Your task to perform on an android device: turn notification dots off Image 0: 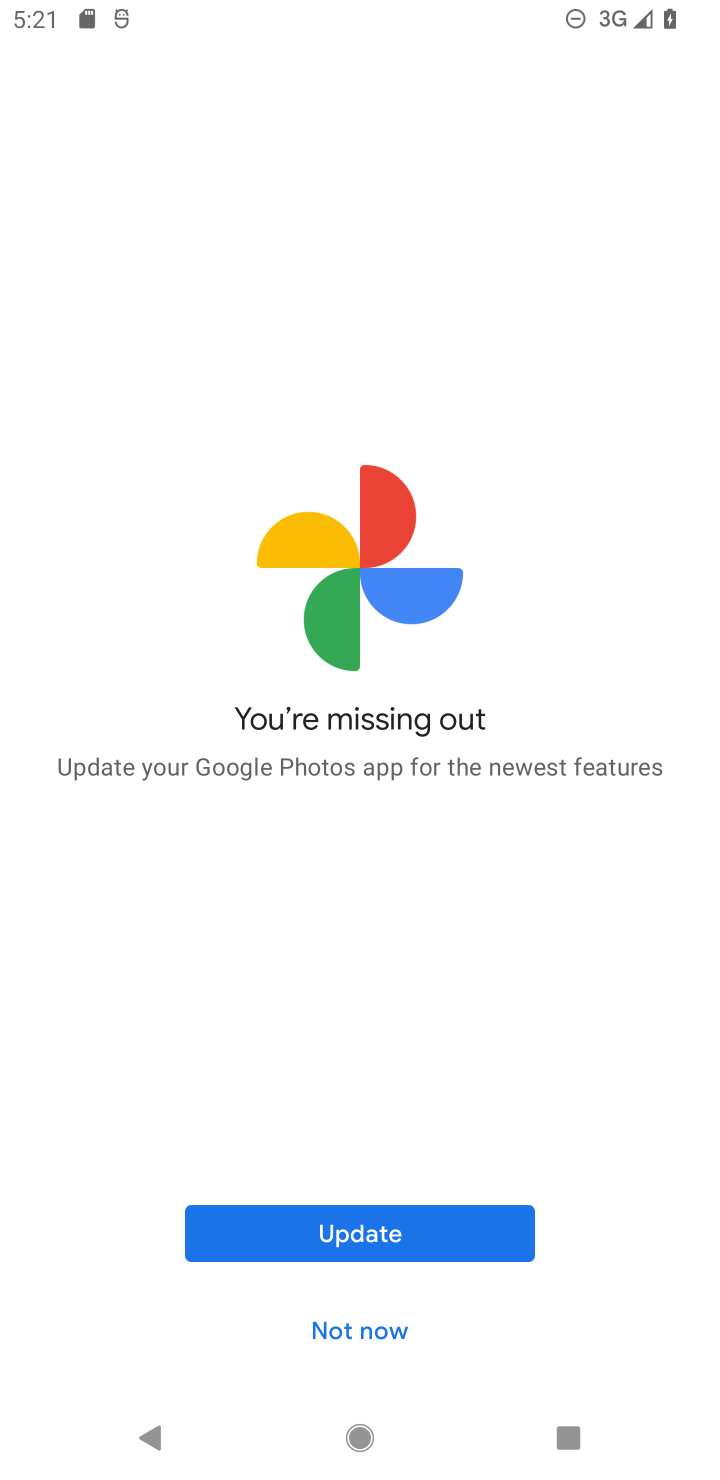
Step 0: press home button
Your task to perform on an android device: turn notification dots off Image 1: 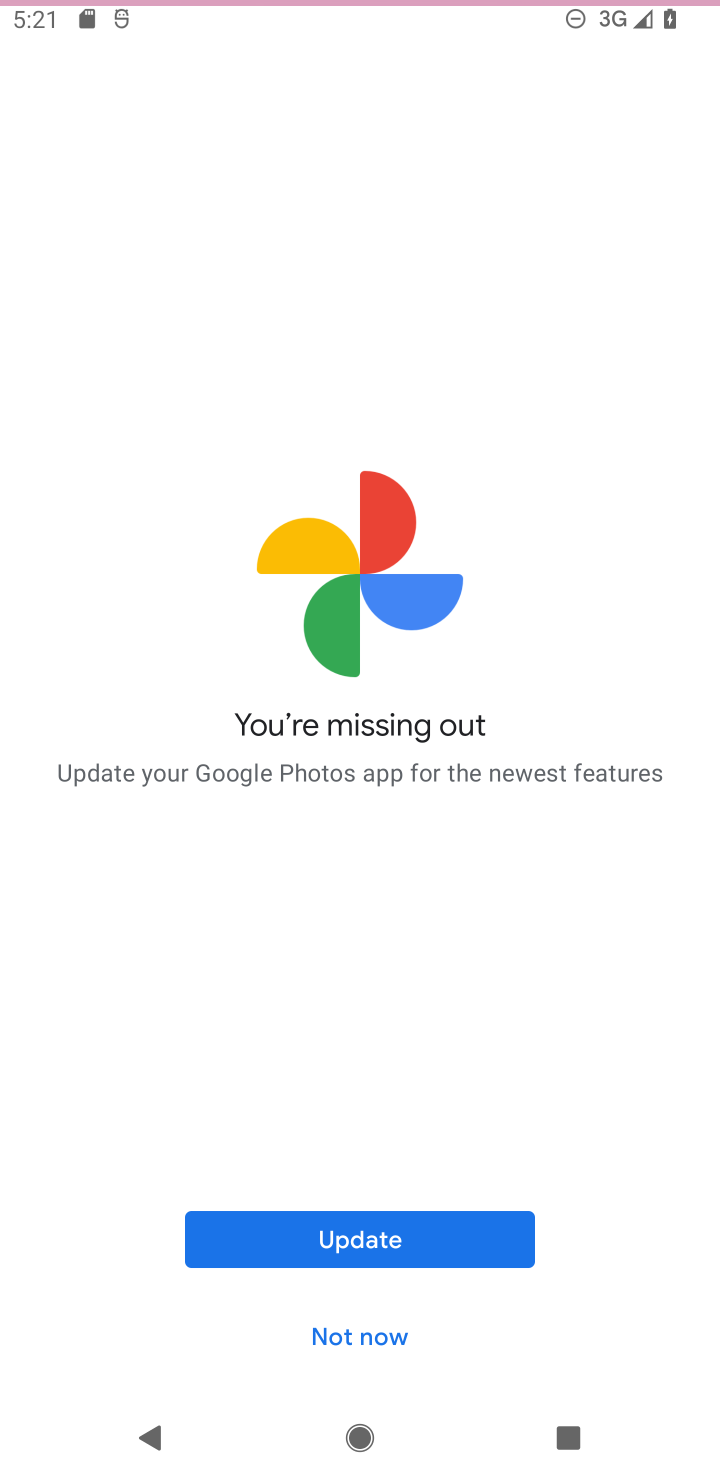
Step 1: drag from (505, 1171) to (502, 232)
Your task to perform on an android device: turn notification dots off Image 2: 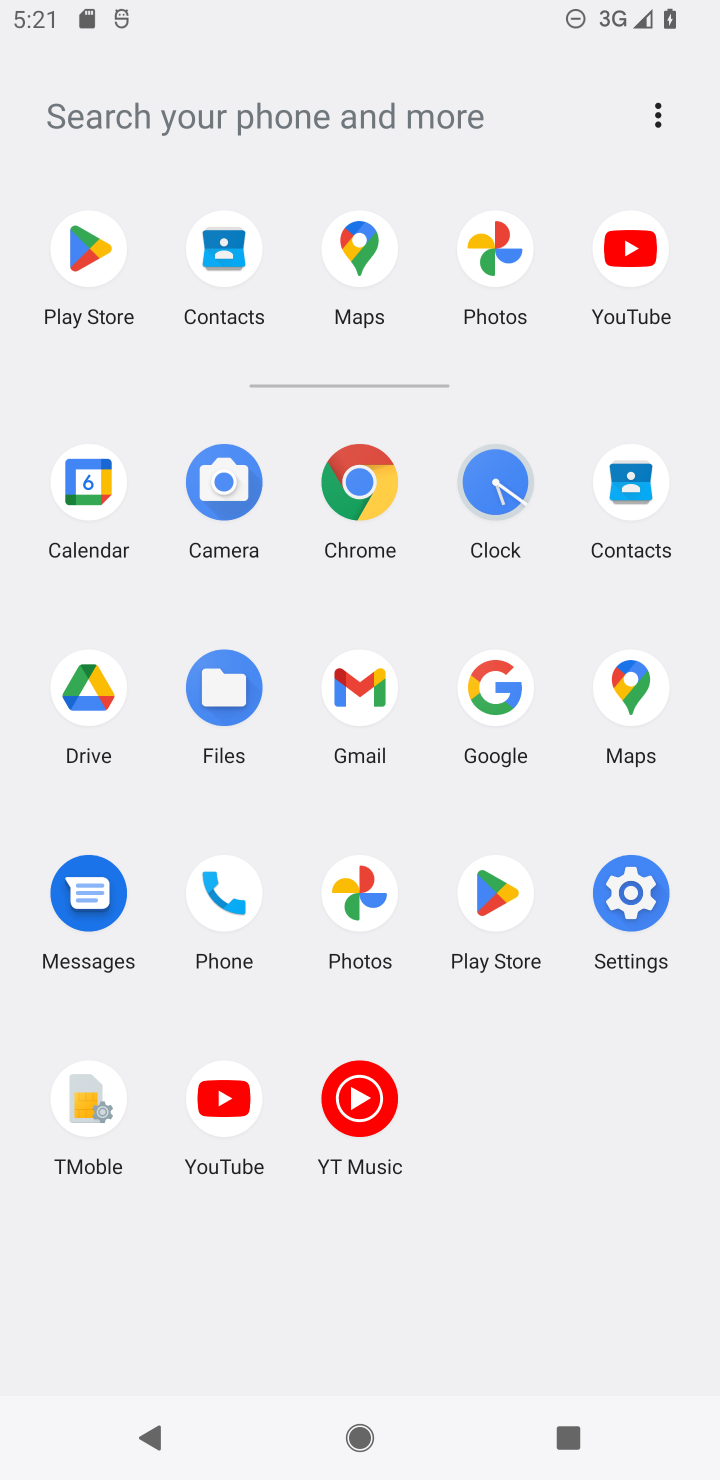
Step 2: click (615, 864)
Your task to perform on an android device: turn notification dots off Image 3: 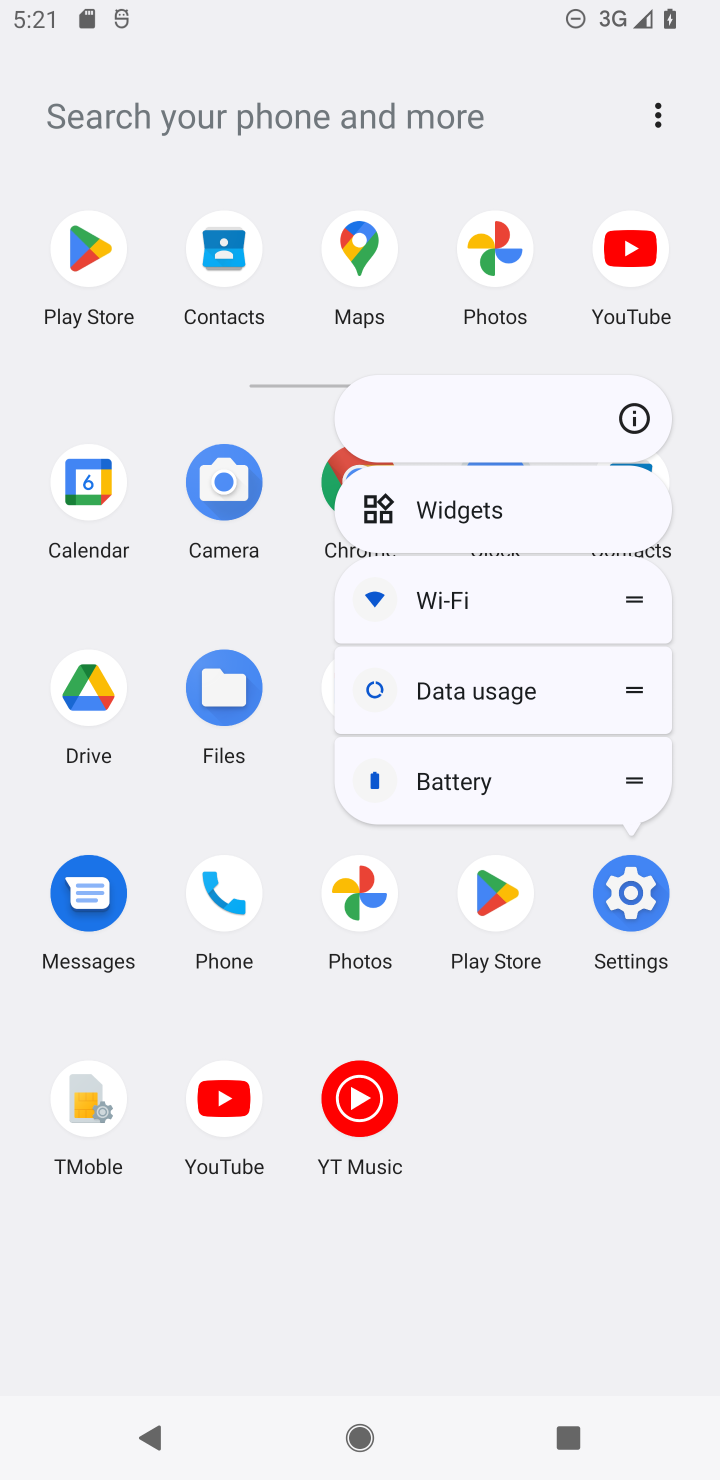
Step 3: click (643, 864)
Your task to perform on an android device: turn notification dots off Image 4: 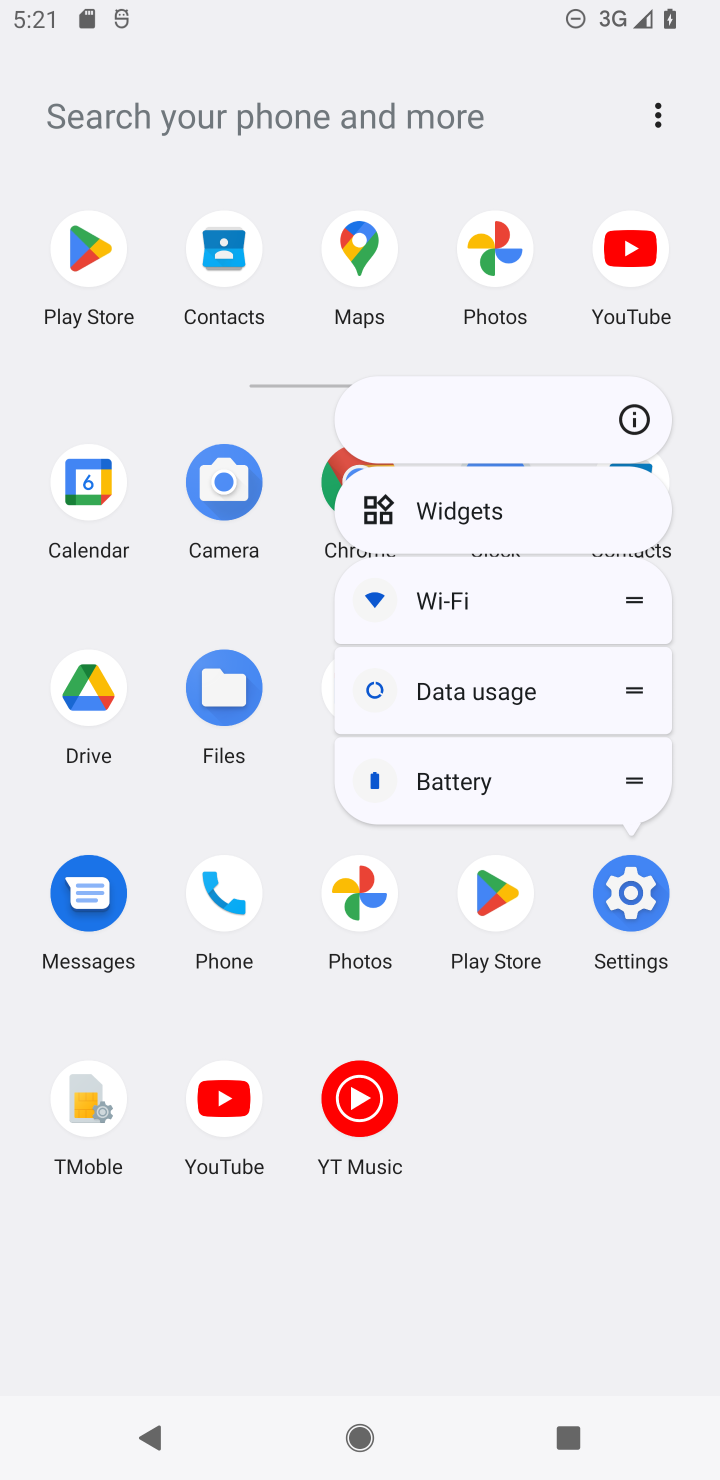
Step 4: click (643, 864)
Your task to perform on an android device: turn notification dots off Image 5: 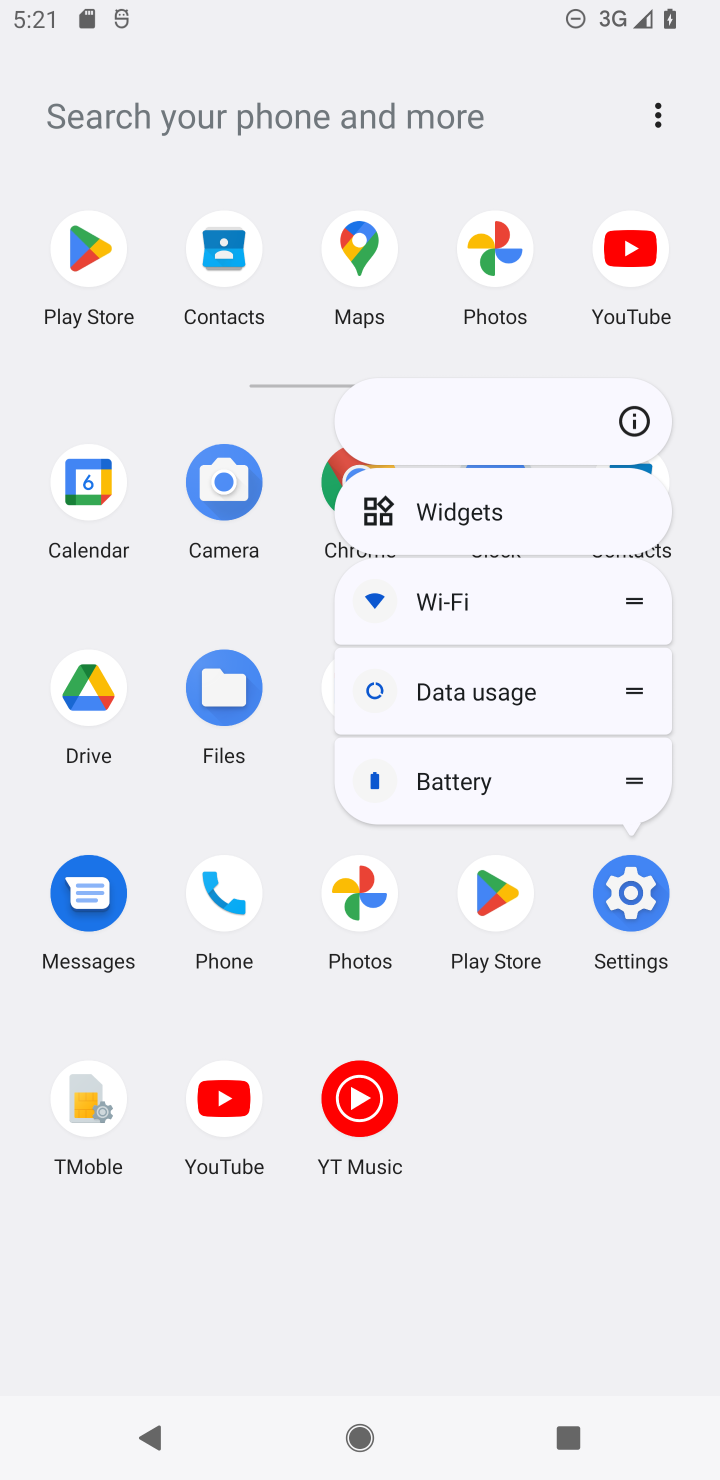
Step 5: click (635, 860)
Your task to perform on an android device: turn notification dots off Image 6: 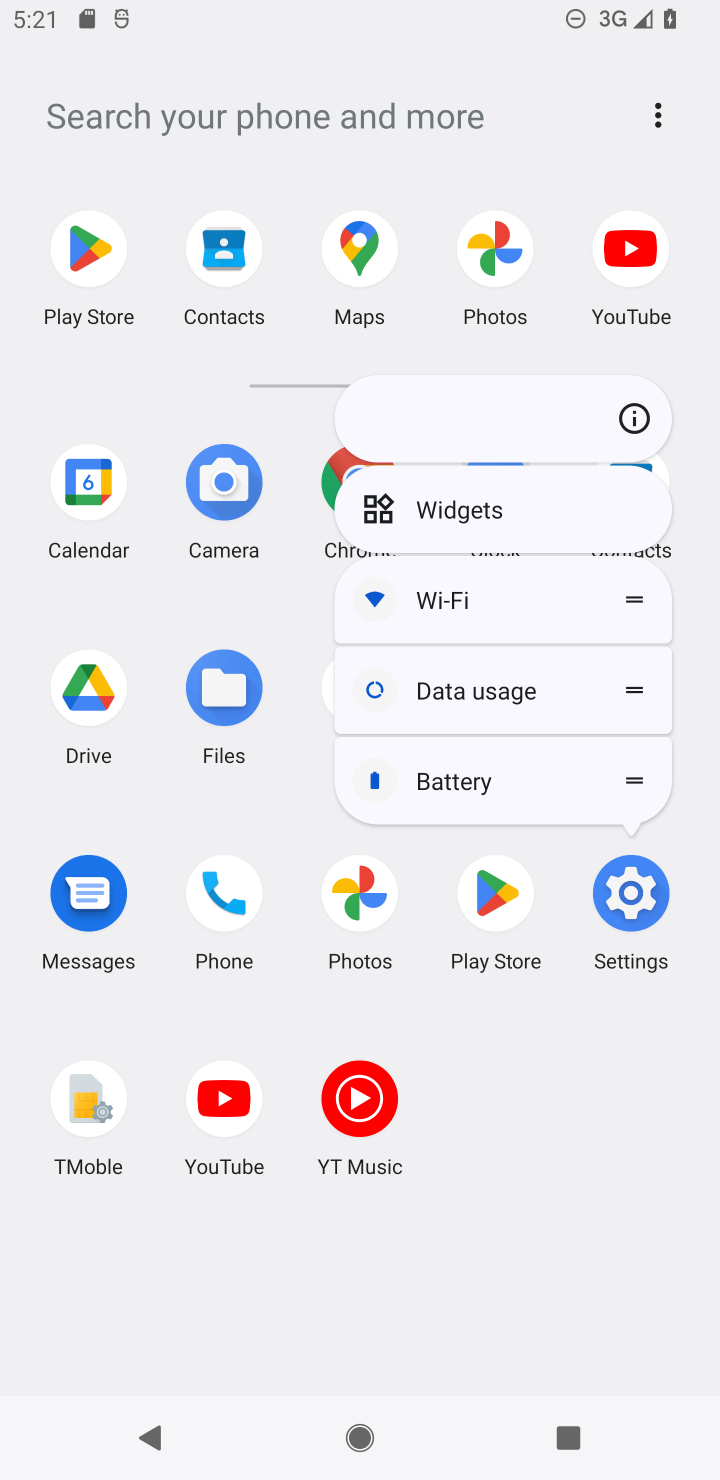
Step 6: click (641, 896)
Your task to perform on an android device: turn notification dots off Image 7: 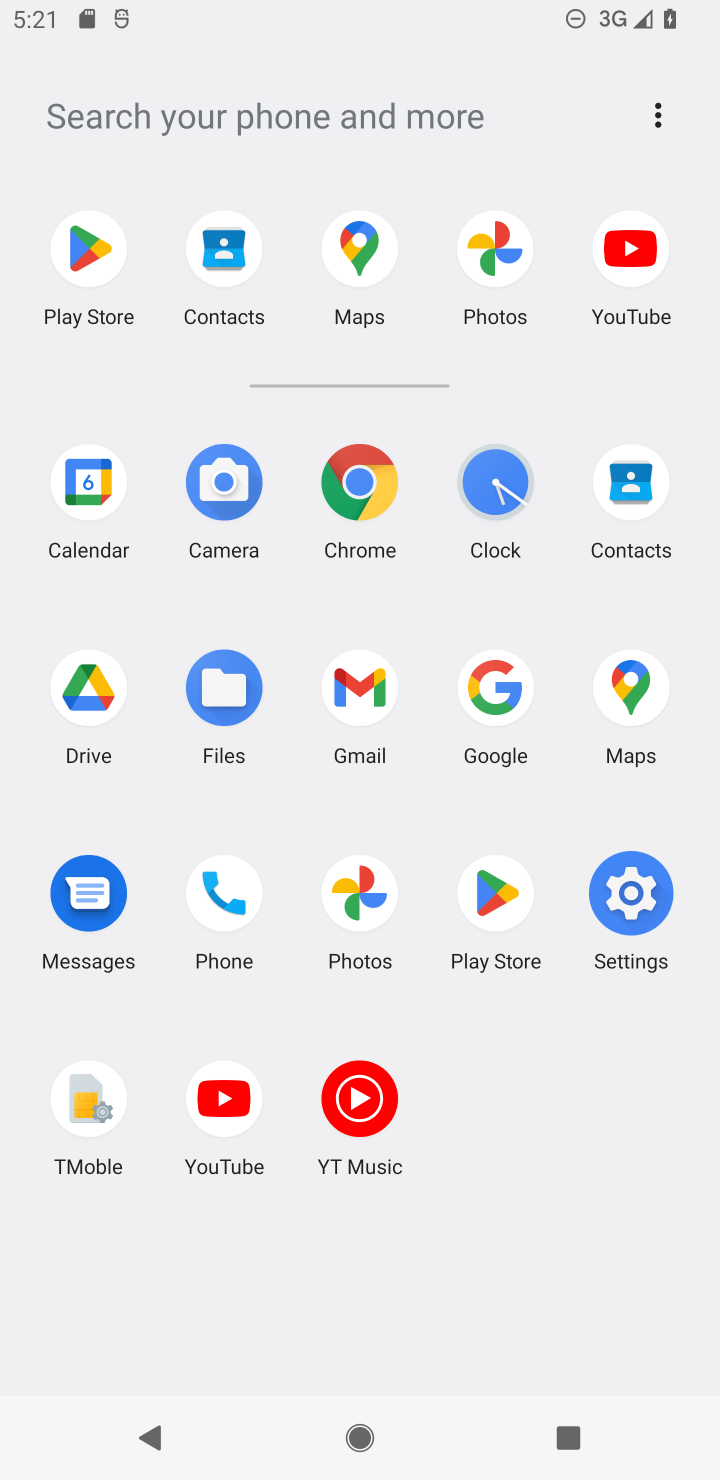
Step 7: click (641, 896)
Your task to perform on an android device: turn notification dots off Image 8: 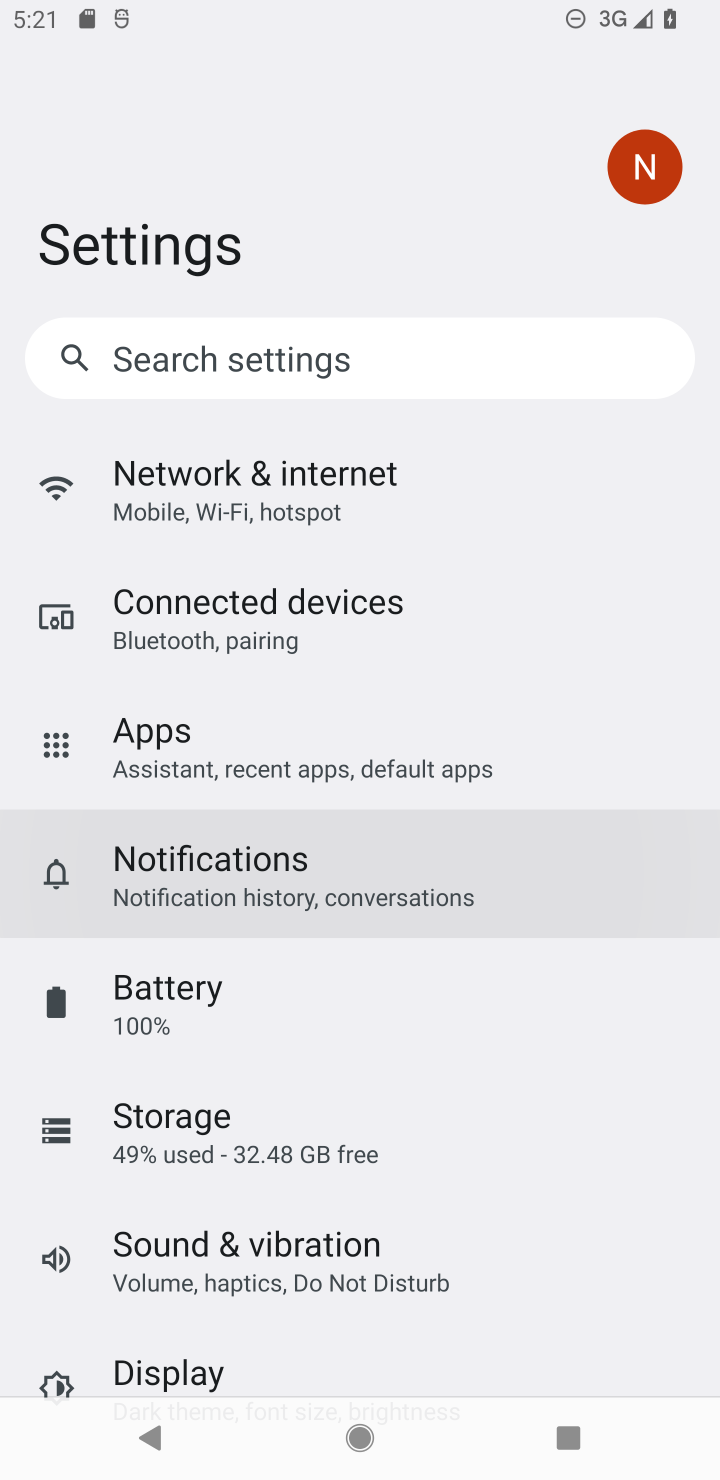
Step 8: drag from (624, 849) to (647, 403)
Your task to perform on an android device: turn notification dots off Image 9: 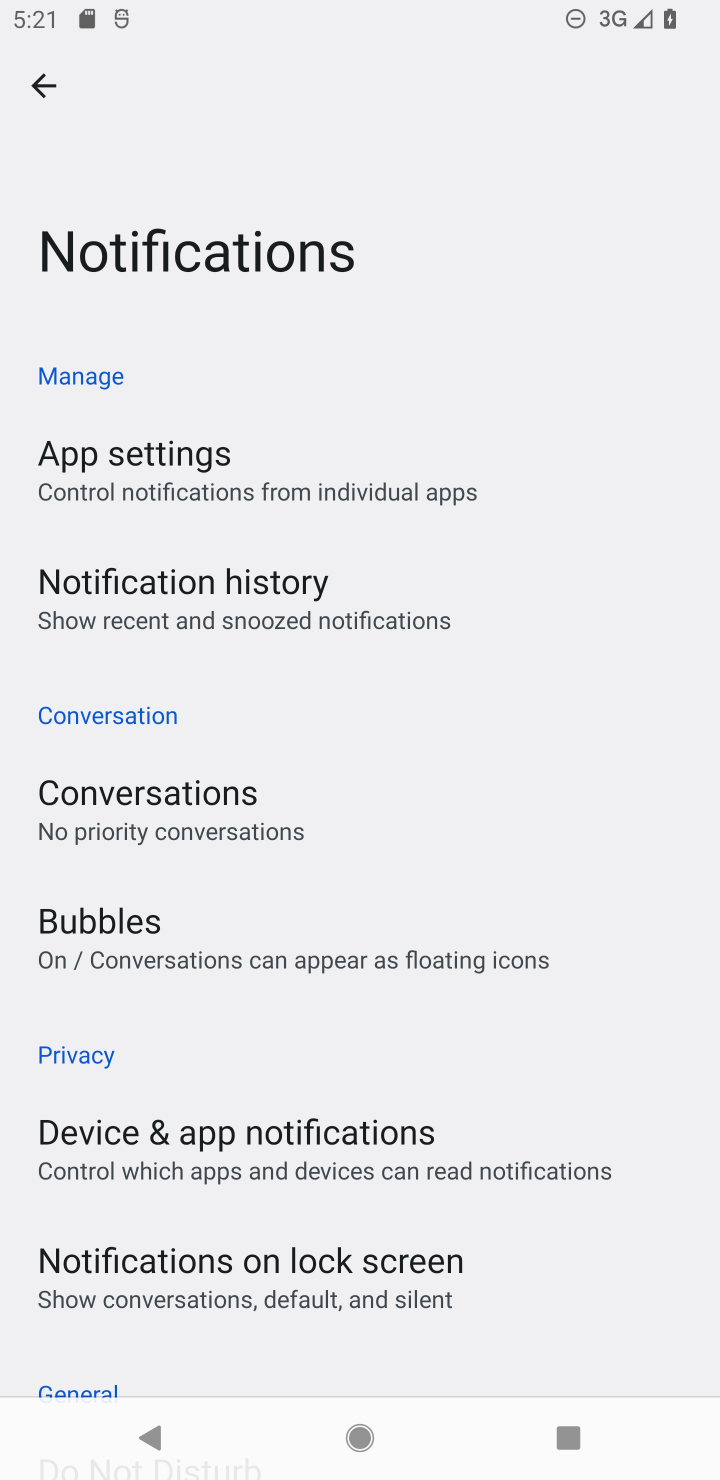
Step 9: drag from (304, 1002) to (286, 250)
Your task to perform on an android device: turn notification dots off Image 10: 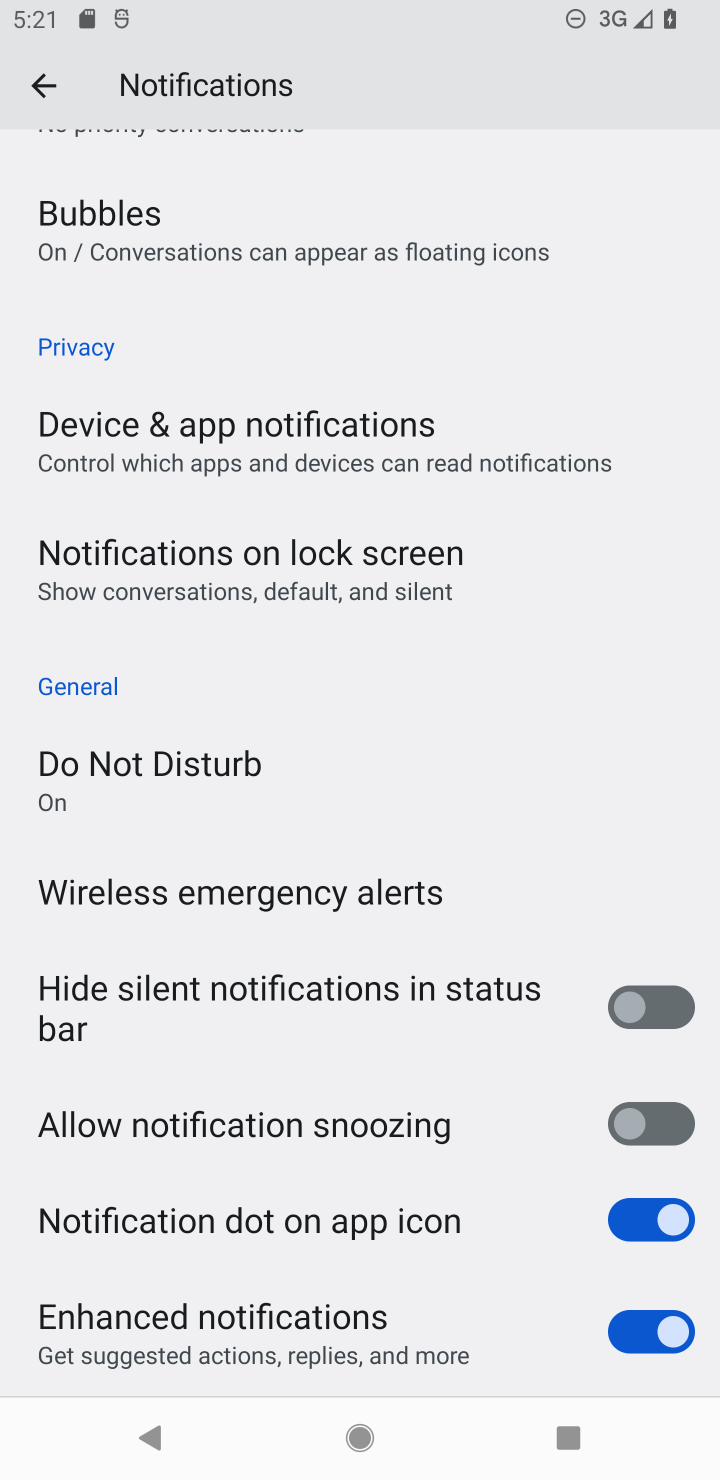
Step 10: drag from (386, 1237) to (434, 533)
Your task to perform on an android device: turn notification dots off Image 11: 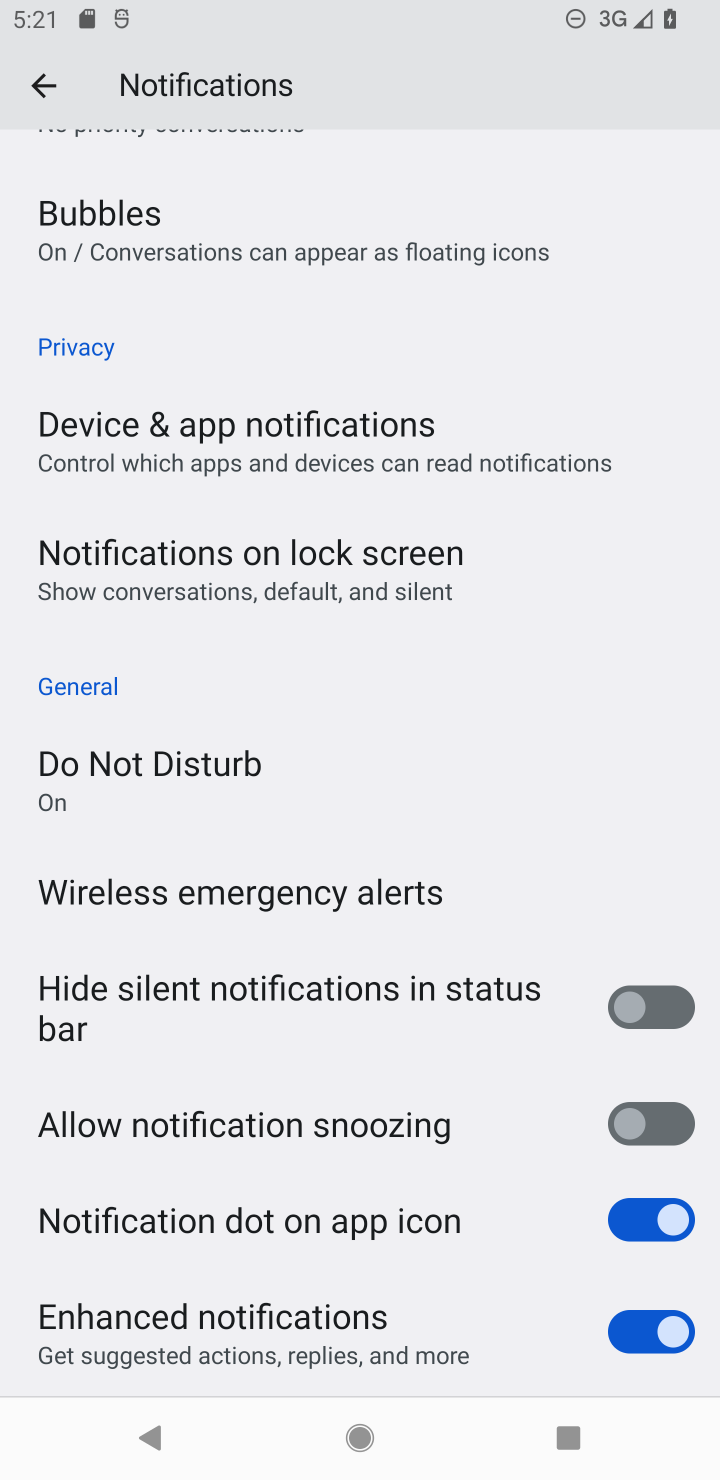
Step 11: click (654, 1218)
Your task to perform on an android device: turn notification dots off Image 12: 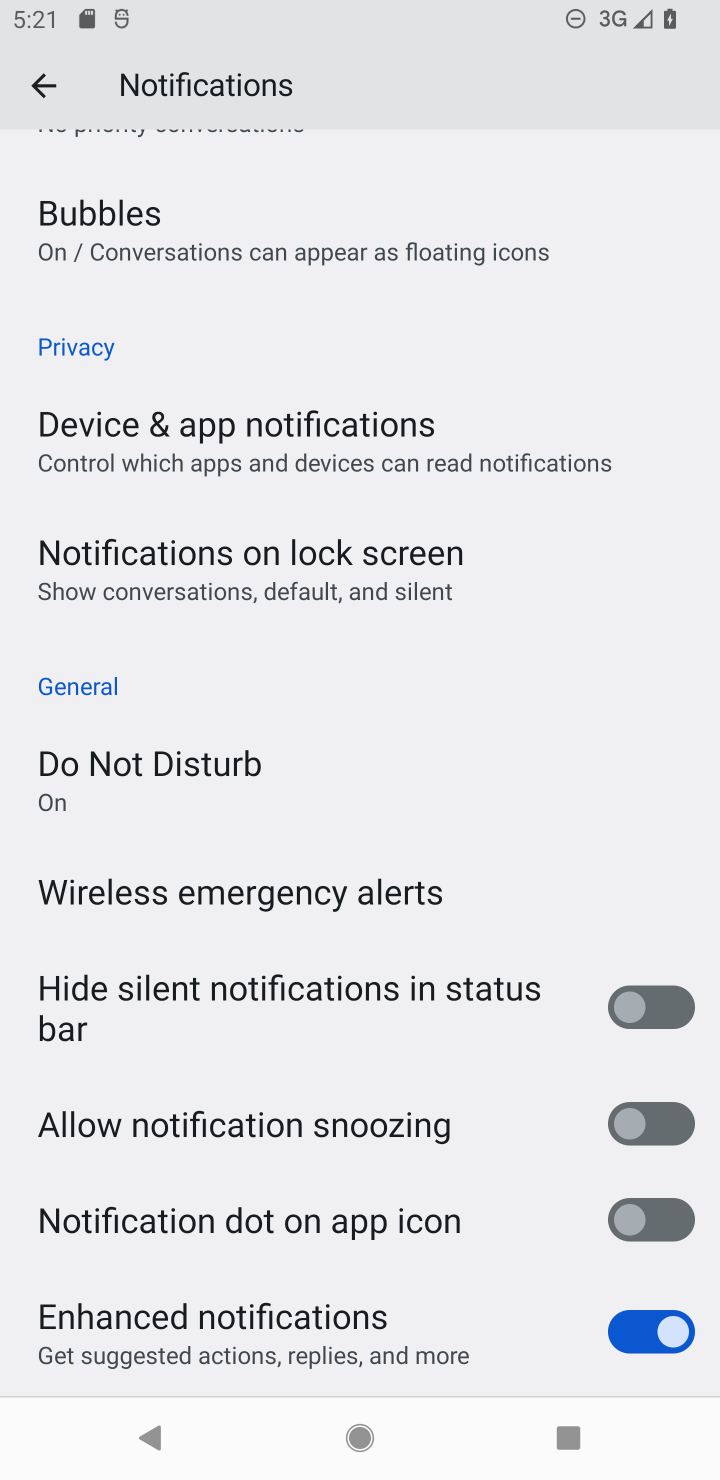
Step 12: task complete